Your task to perform on an android device: snooze an email in the gmail app Image 0: 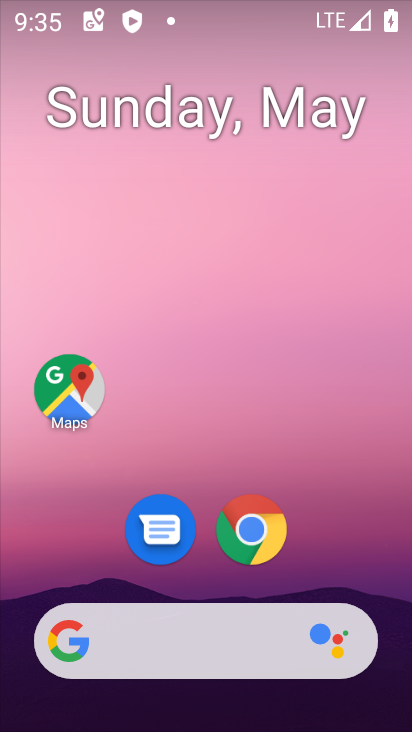
Step 0: drag from (363, 550) to (44, 44)
Your task to perform on an android device: snooze an email in the gmail app Image 1: 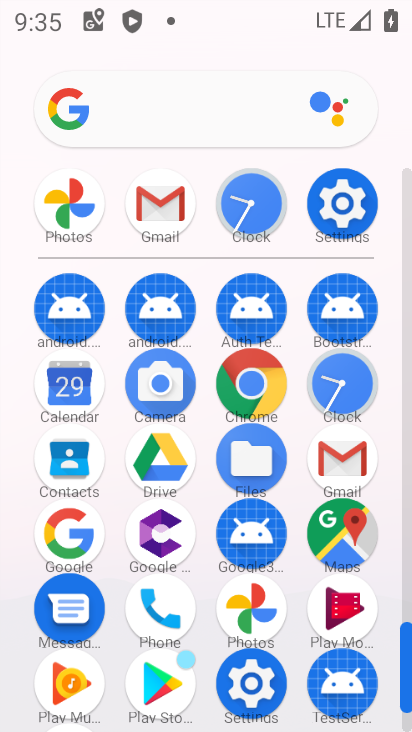
Step 1: click (326, 460)
Your task to perform on an android device: snooze an email in the gmail app Image 2: 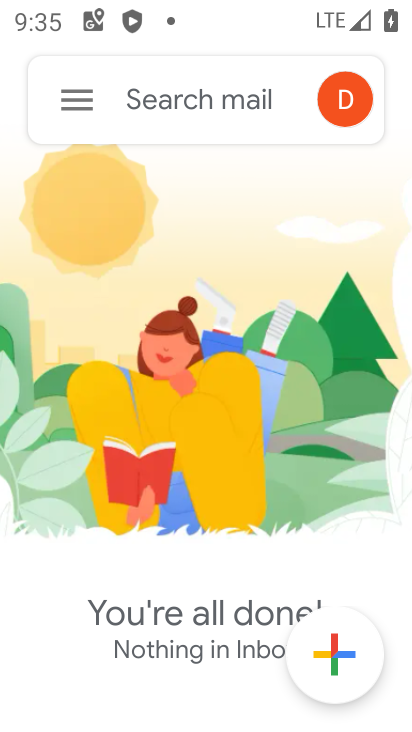
Step 2: click (70, 109)
Your task to perform on an android device: snooze an email in the gmail app Image 3: 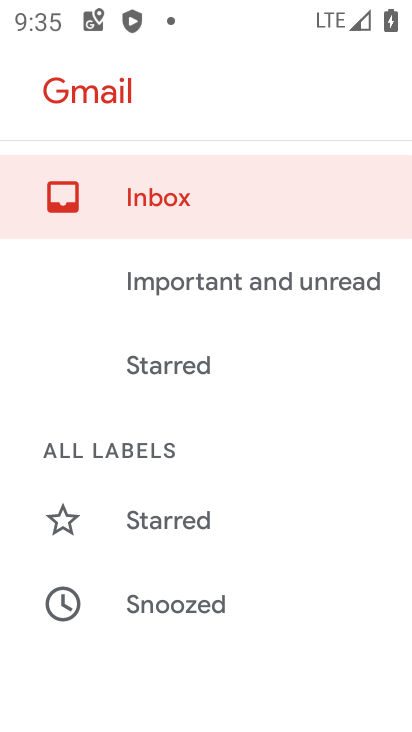
Step 3: task complete